Your task to perform on an android device: turn on improve location accuracy Image 0: 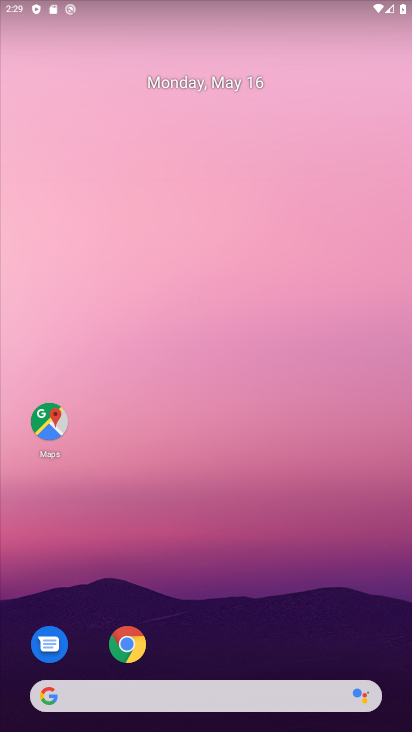
Step 0: drag from (260, 630) to (239, 114)
Your task to perform on an android device: turn on improve location accuracy Image 1: 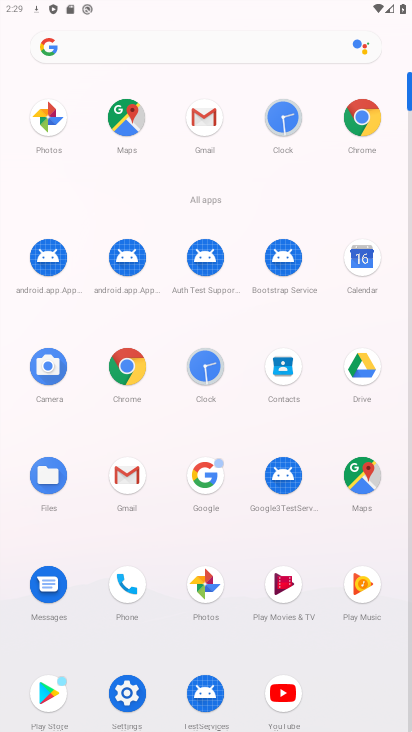
Step 1: click (124, 697)
Your task to perform on an android device: turn on improve location accuracy Image 2: 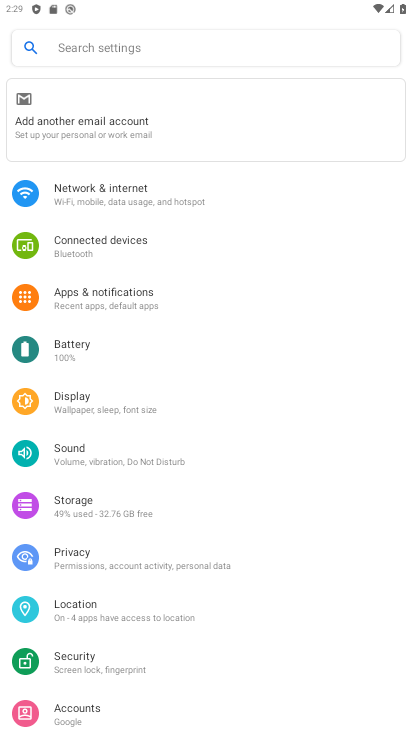
Step 2: click (128, 610)
Your task to perform on an android device: turn on improve location accuracy Image 3: 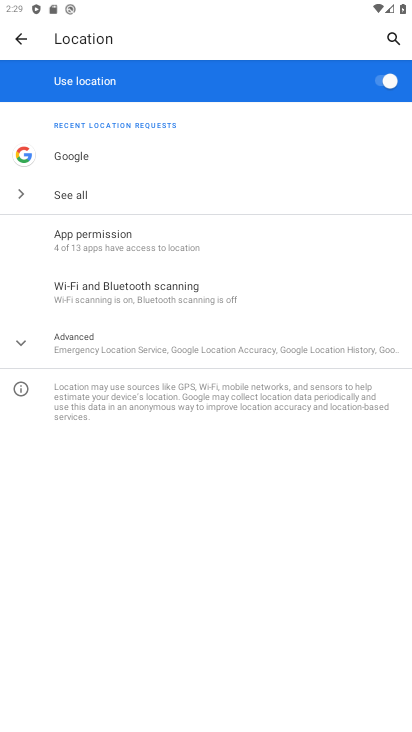
Step 3: click (18, 345)
Your task to perform on an android device: turn on improve location accuracy Image 4: 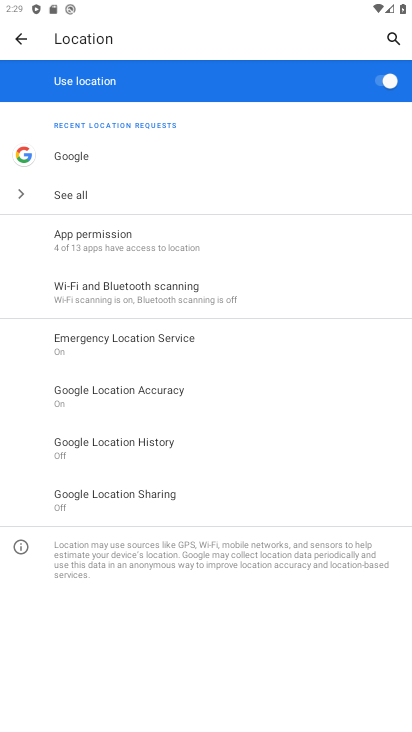
Step 4: click (150, 391)
Your task to perform on an android device: turn on improve location accuracy Image 5: 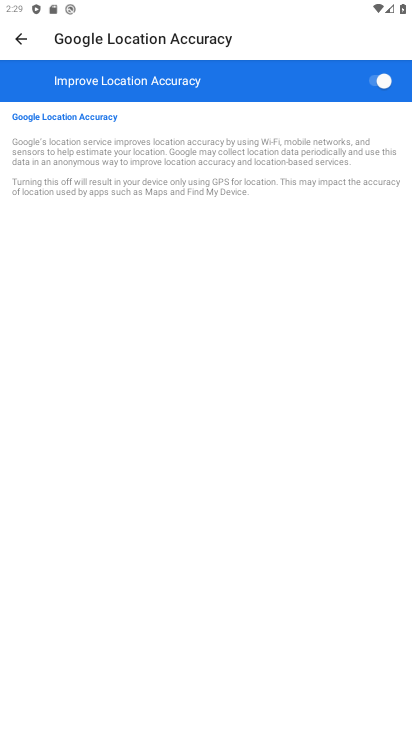
Step 5: task complete